Your task to perform on an android device: turn on bluetooth scan Image 0: 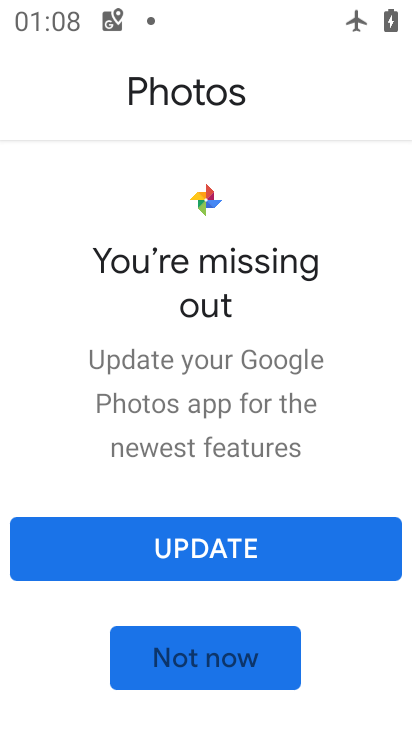
Step 0: press home button
Your task to perform on an android device: turn on bluetooth scan Image 1: 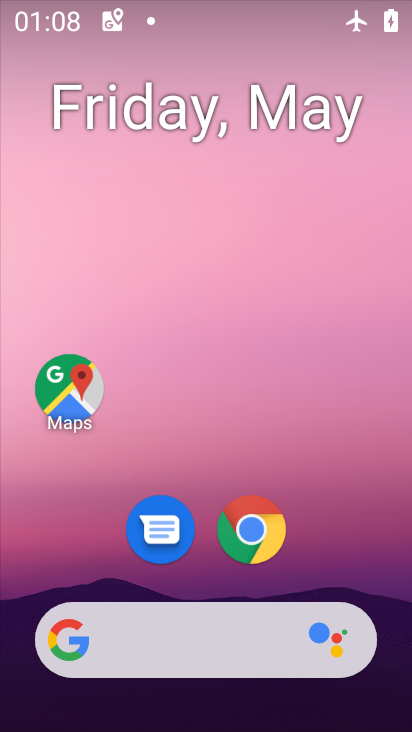
Step 1: drag from (327, 343) to (287, 139)
Your task to perform on an android device: turn on bluetooth scan Image 2: 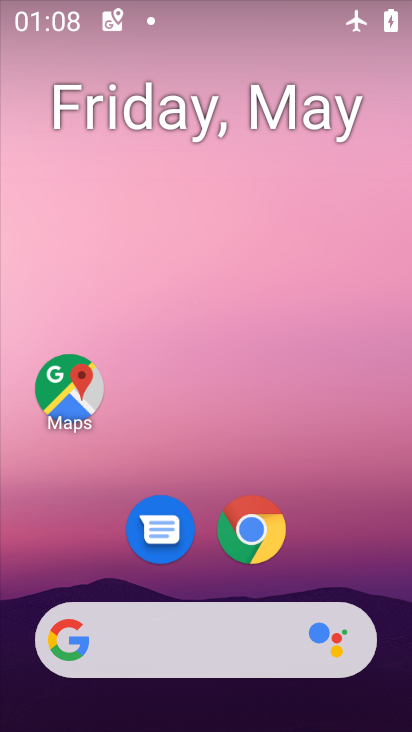
Step 2: drag from (302, 587) to (289, 278)
Your task to perform on an android device: turn on bluetooth scan Image 3: 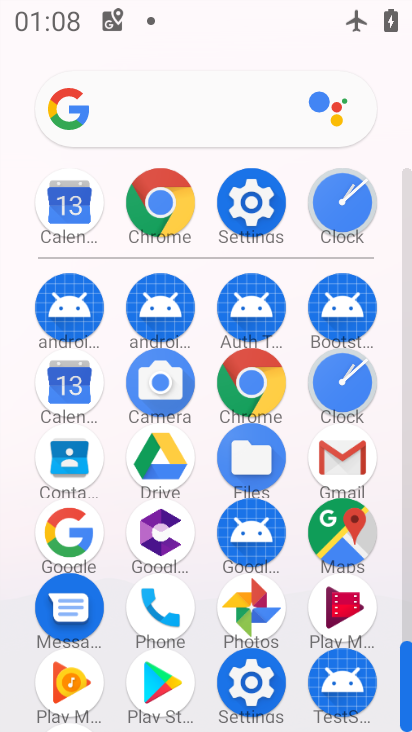
Step 3: click (166, 193)
Your task to perform on an android device: turn on bluetooth scan Image 4: 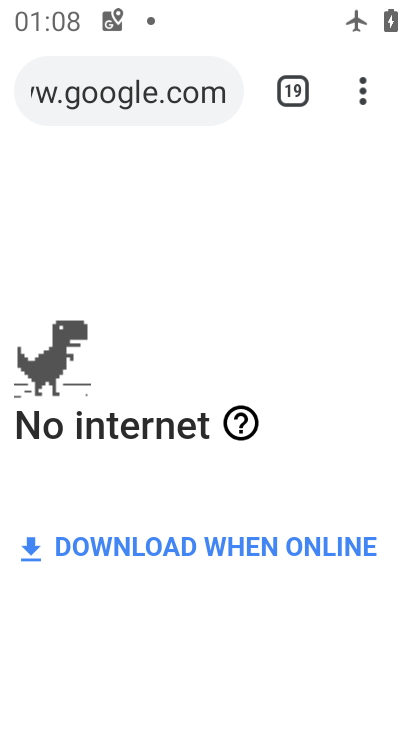
Step 4: click (336, 85)
Your task to perform on an android device: turn on bluetooth scan Image 5: 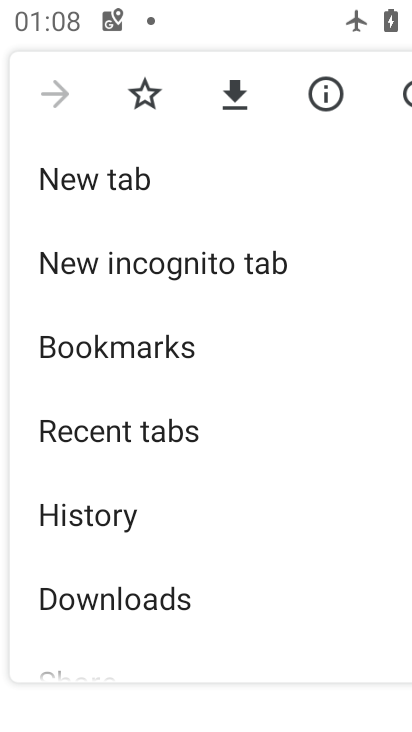
Step 5: press home button
Your task to perform on an android device: turn on bluetooth scan Image 6: 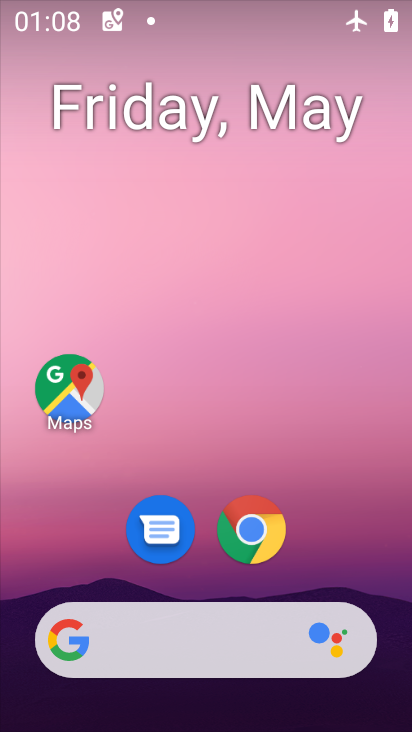
Step 6: drag from (284, 561) to (276, 226)
Your task to perform on an android device: turn on bluetooth scan Image 7: 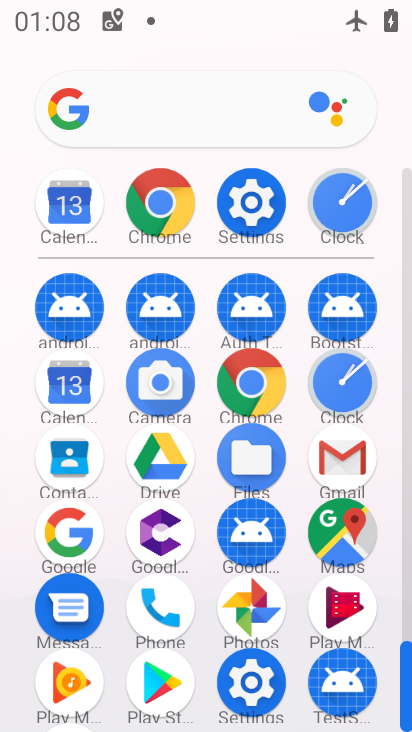
Step 7: click (246, 200)
Your task to perform on an android device: turn on bluetooth scan Image 8: 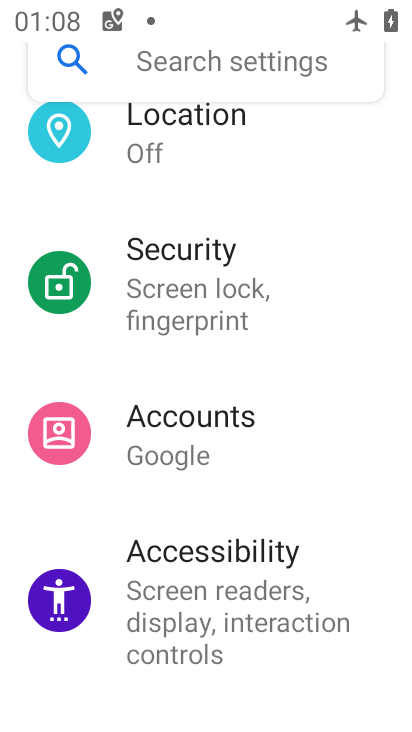
Step 8: click (160, 57)
Your task to perform on an android device: turn on bluetooth scan Image 9: 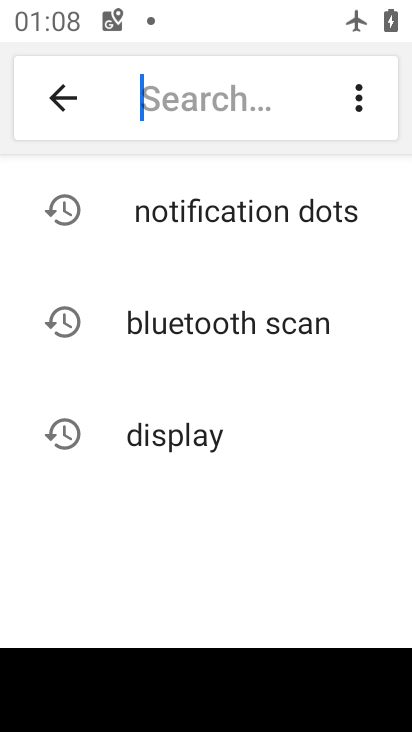
Step 9: click (189, 321)
Your task to perform on an android device: turn on bluetooth scan Image 10: 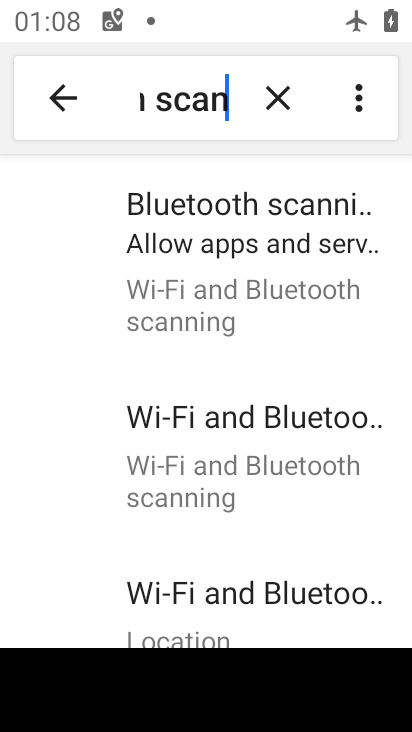
Step 10: click (259, 251)
Your task to perform on an android device: turn on bluetooth scan Image 11: 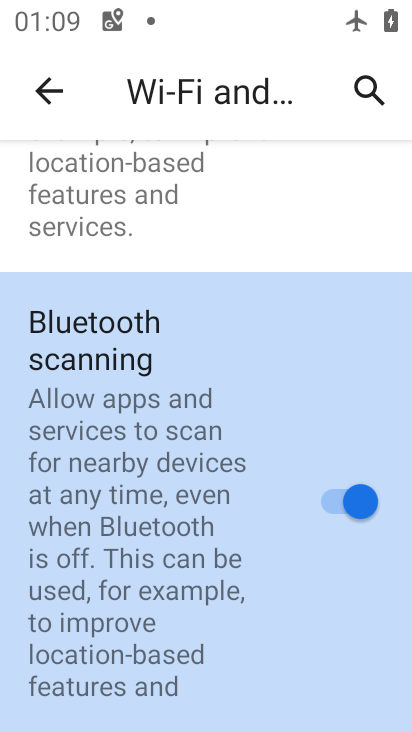
Step 11: task complete